Your task to perform on an android device: Set the phone to "Do not disturb". Image 0: 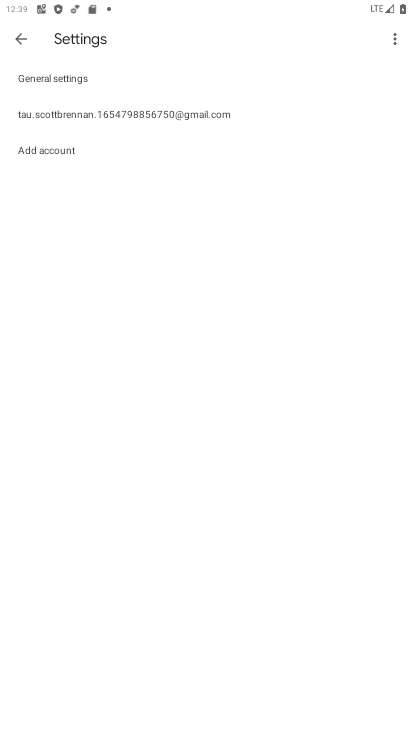
Step 0: drag from (351, 22) to (344, 366)
Your task to perform on an android device: Set the phone to "Do not disturb". Image 1: 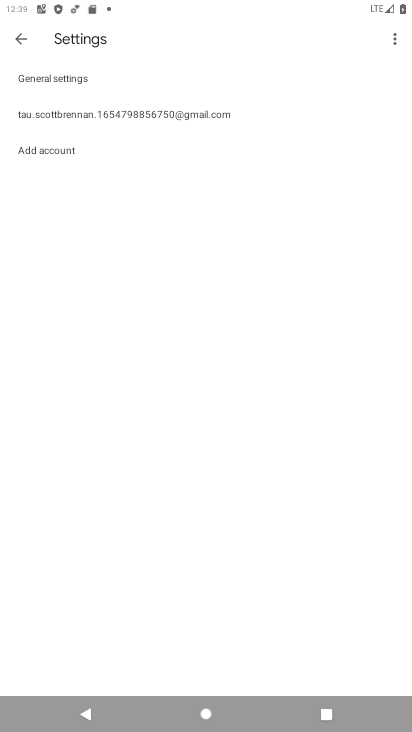
Step 1: drag from (258, 5) to (237, 463)
Your task to perform on an android device: Set the phone to "Do not disturb". Image 2: 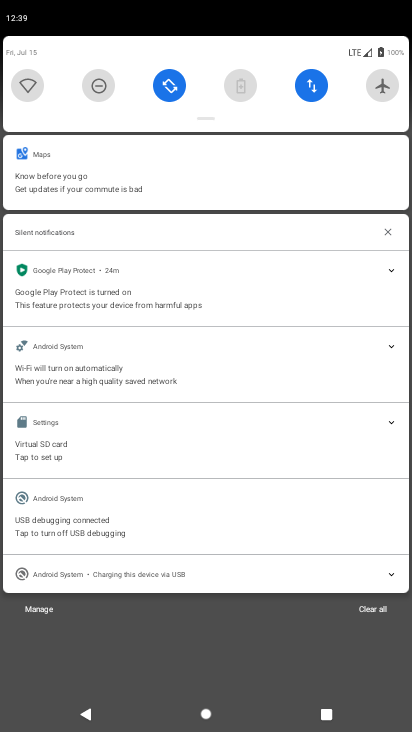
Step 2: click (104, 96)
Your task to perform on an android device: Set the phone to "Do not disturb". Image 3: 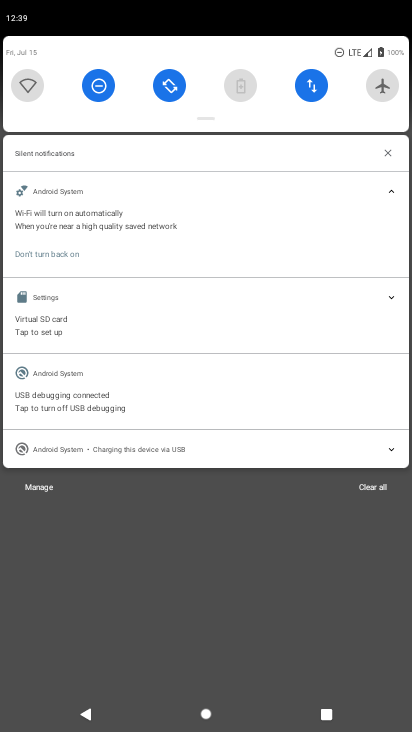
Step 3: task complete